Your task to perform on an android device: turn on location history Image 0: 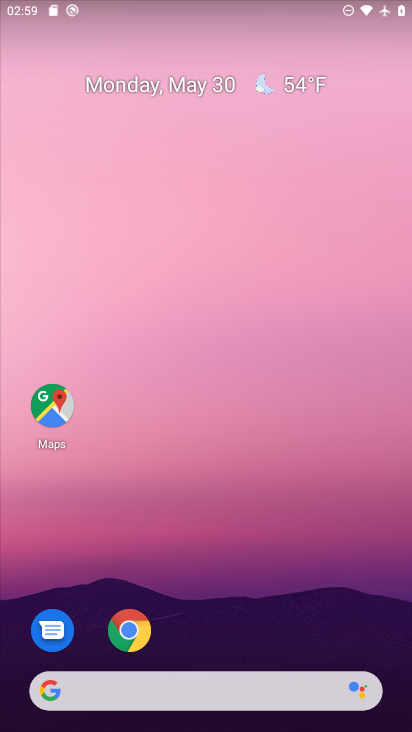
Step 0: press home button
Your task to perform on an android device: turn on location history Image 1: 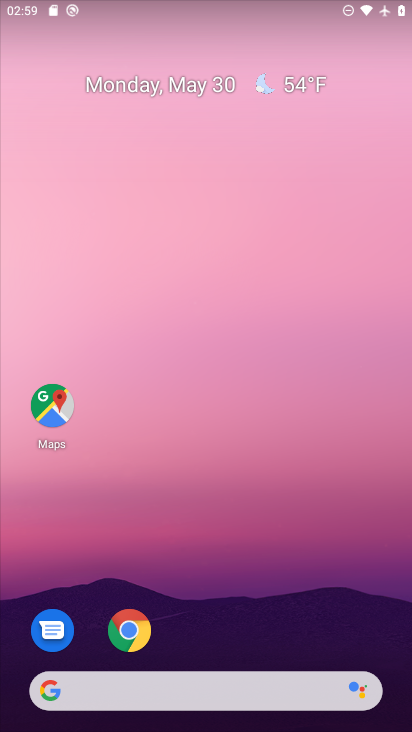
Step 1: click (49, 412)
Your task to perform on an android device: turn on location history Image 2: 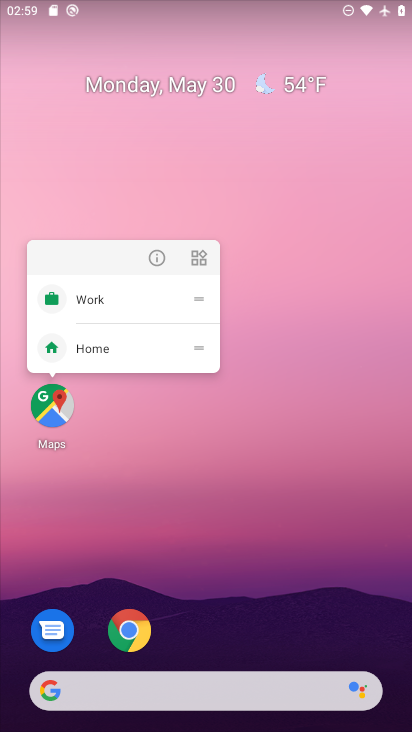
Step 2: click (53, 419)
Your task to perform on an android device: turn on location history Image 3: 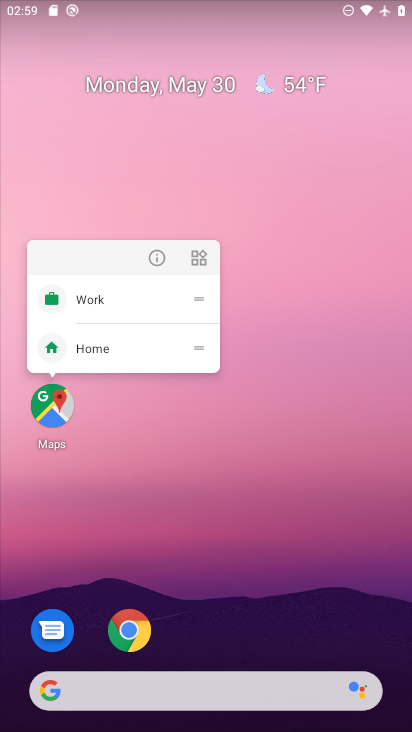
Step 3: click (58, 411)
Your task to perform on an android device: turn on location history Image 4: 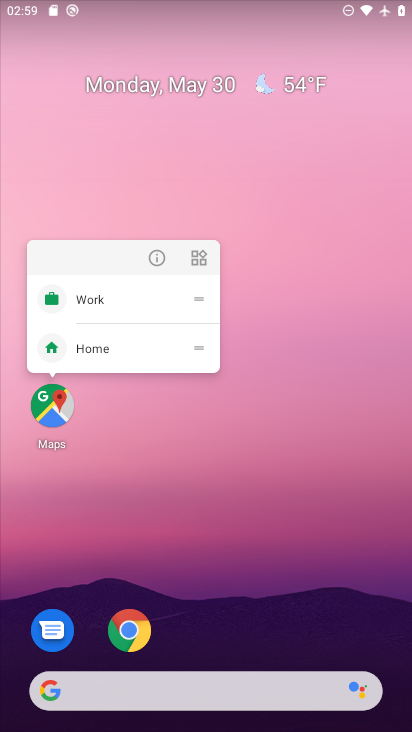
Step 4: click (54, 409)
Your task to perform on an android device: turn on location history Image 5: 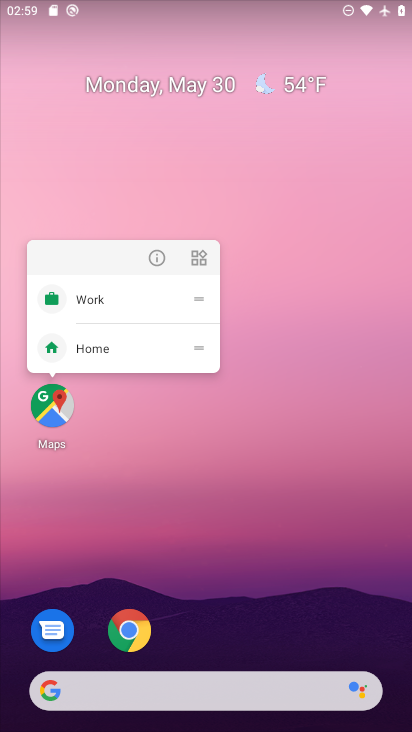
Step 5: click (49, 408)
Your task to perform on an android device: turn on location history Image 6: 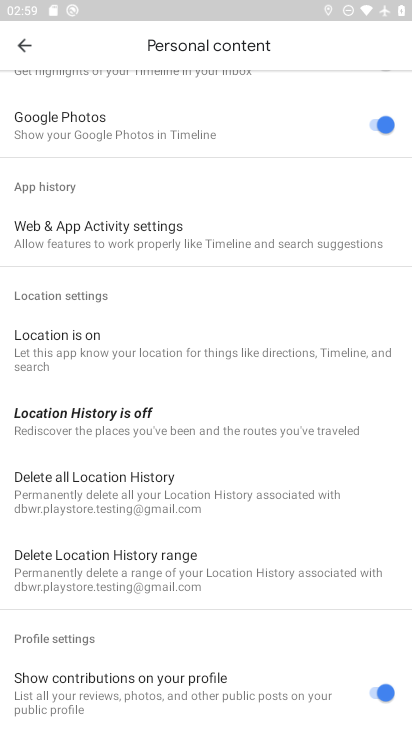
Step 6: click (143, 426)
Your task to perform on an android device: turn on location history Image 7: 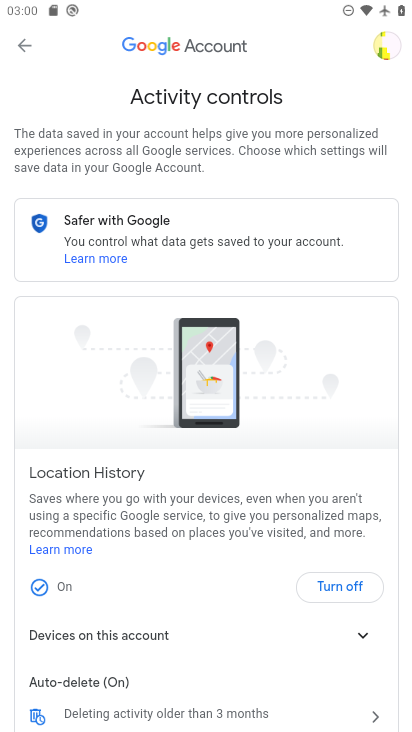
Step 7: task complete